Your task to perform on an android device: Search for Italian restaurants on Maps Image 0: 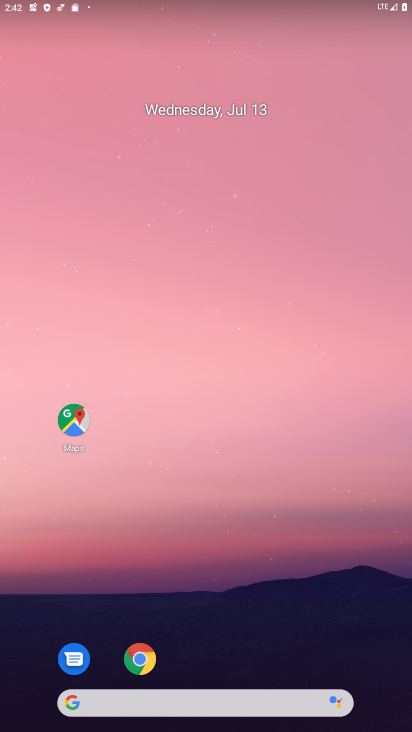
Step 0: click (74, 418)
Your task to perform on an android device: Search for Italian restaurants on Maps Image 1: 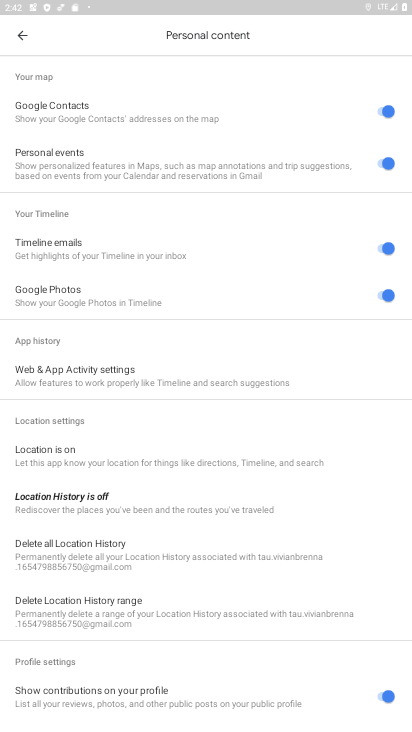
Step 1: press back button
Your task to perform on an android device: Search for Italian restaurants on Maps Image 2: 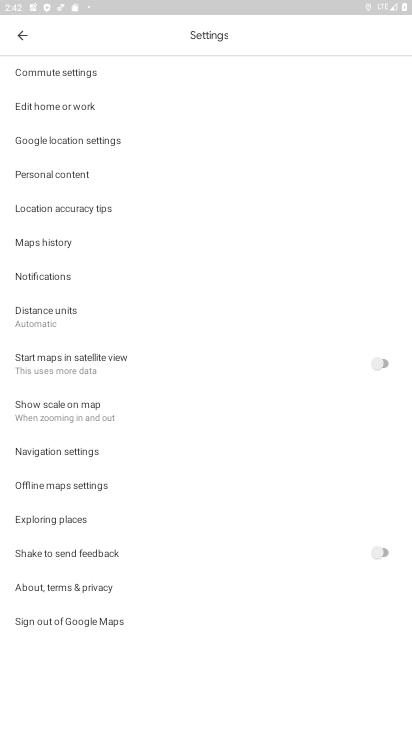
Step 2: press back button
Your task to perform on an android device: Search for Italian restaurants on Maps Image 3: 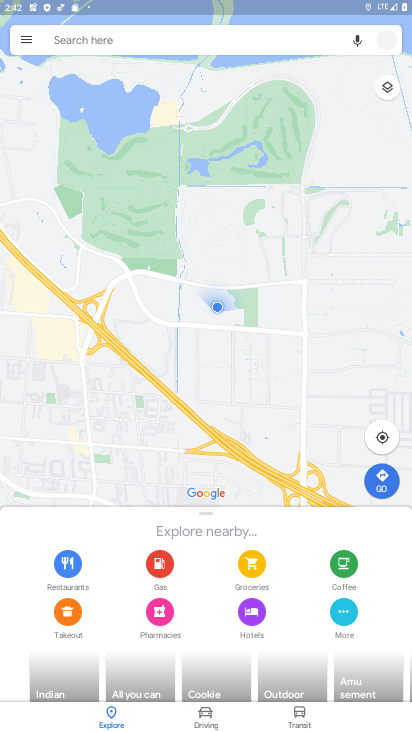
Step 3: press back button
Your task to perform on an android device: Search for Italian restaurants on Maps Image 4: 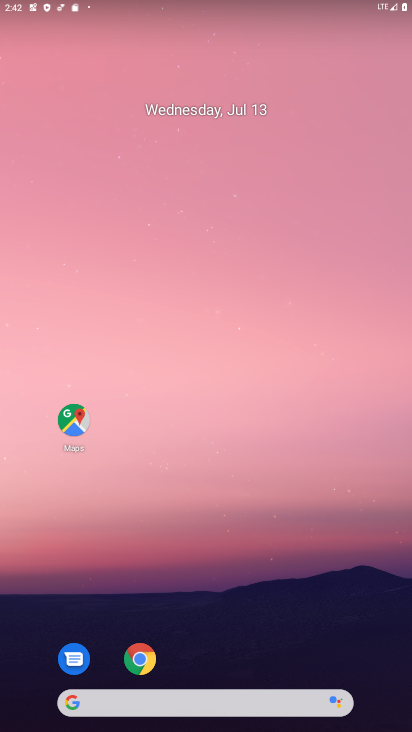
Step 4: click (73, 421)
Your task to perform on an android device: Search for Italian restaurants on Maps Image 5: 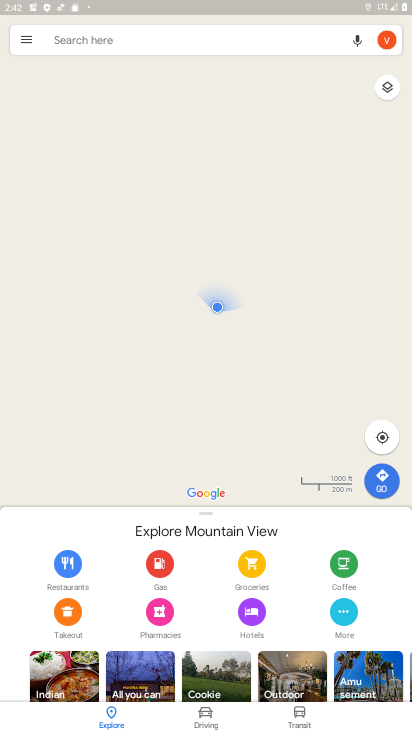
Step 5: click (93, 35)
Your task to perform on an android device: Search for Italian restaurants on Maps Image 6: 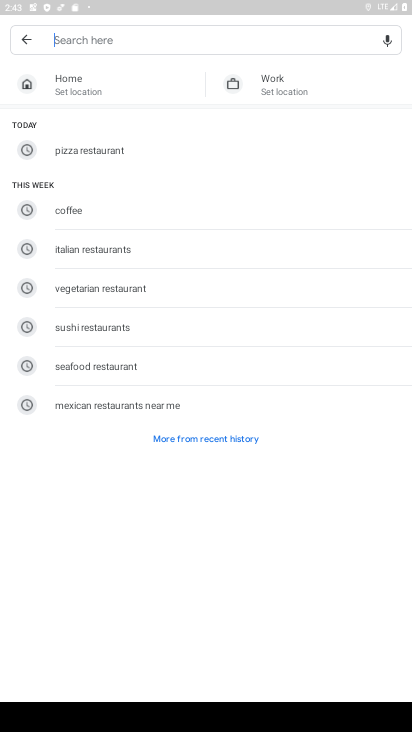
Step 6: type "italian restaurants"
Your task to perform on an android device: Search for Italian restaurants on Maps Image 7: 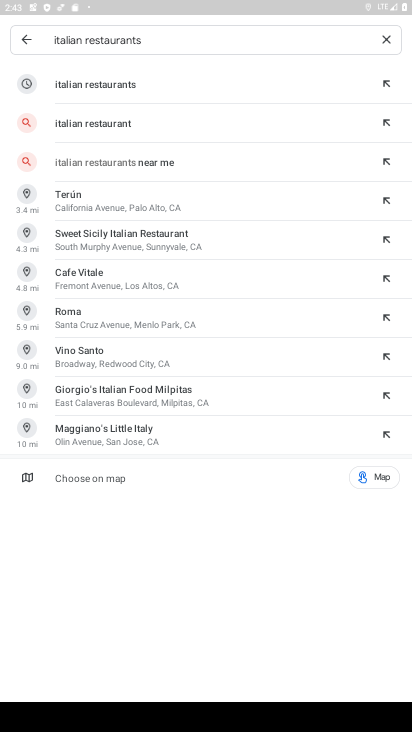
Step 7: click (96, 70)
Your task to perform on an android device: Search for Italian restaurants on Maps Image 8: 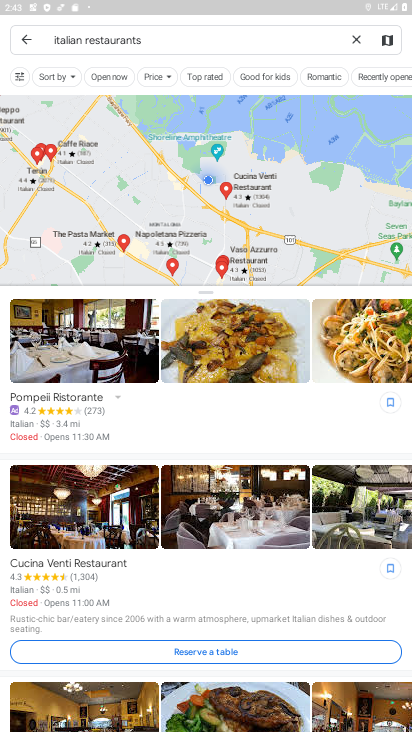
Step 8: task complete